Your task to perform on an android device: allow notifications from all sites in the chrome app Image 0: 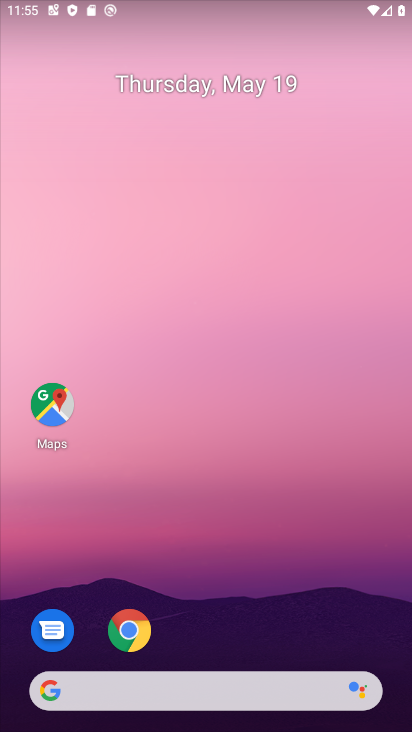
Step 0: click (129, 628)
Your task to perform on an android device: allow notifications from all sites in the chrome app Image 1: 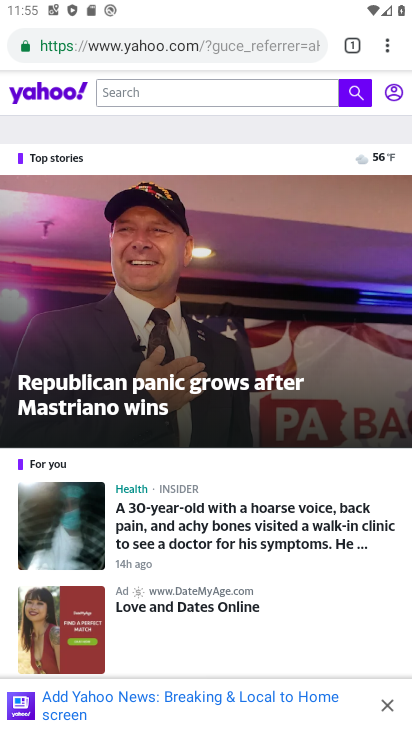
Step 1: click (386, 45)
Your task to perform on an android device: allow notifications from all sites in the chrome app Image 2: 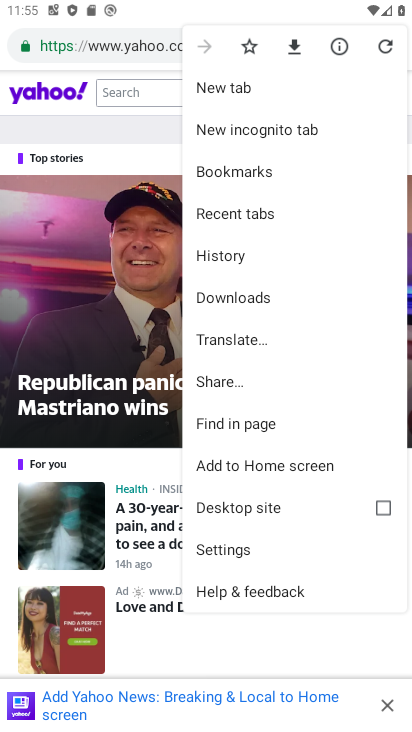
Step 2: click (227, 548)
Your task to perform on an android device: allow notifications from all sites in the chrome app Image 3: 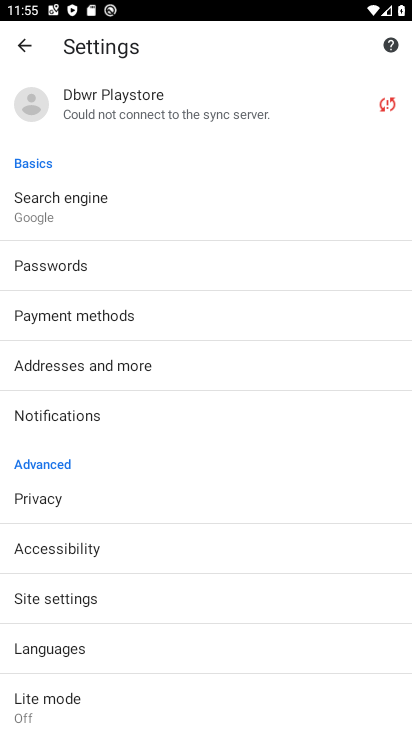
Step 3: click (66, 600)
Your task to perform on an android device: allow notifications from all sites in the chrome app Image 4: 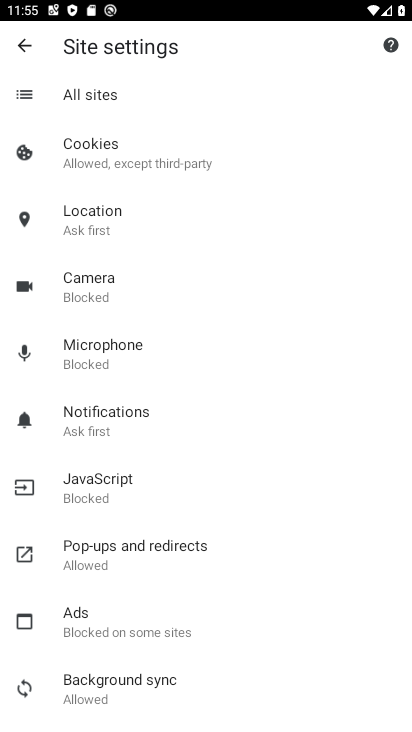
Step 4: click (96, 411)
Your task to perform on an android device: allow notifications from all sites in the chrome app Image 5: 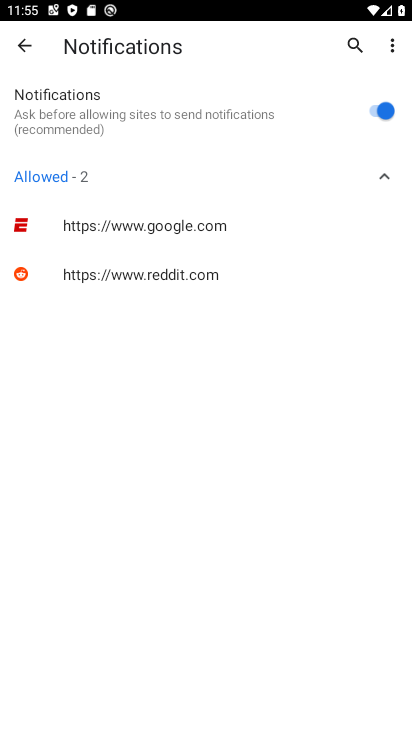
Step 5: task complete